Your task to perform on an android device: Open Google Chrome and click the shortcut for Amazon.com Image 0: 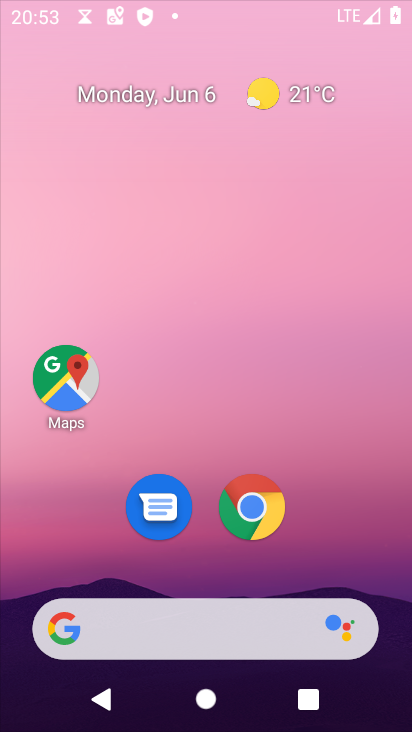
Step 0: drag from (213, 572) to (229, 132)
Your task to perform on an android device: Open Google Chrome and click the shortcut for Amazon.com Image 1: 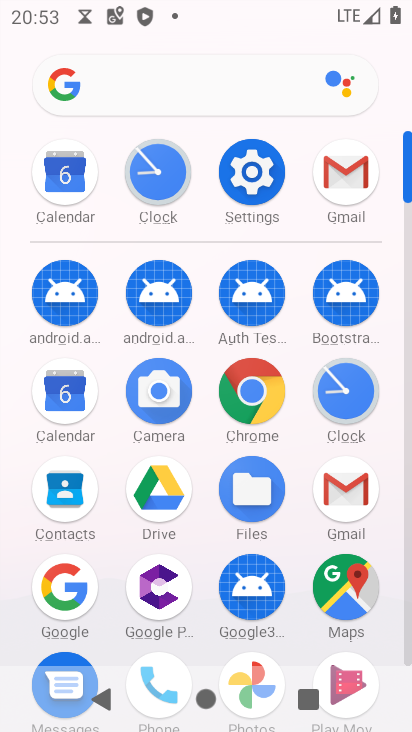
Step 1: click (257, 410)
Your task to perform on an android device: Open Google Chrome and click the shortcut for Amazon.com Image 2: 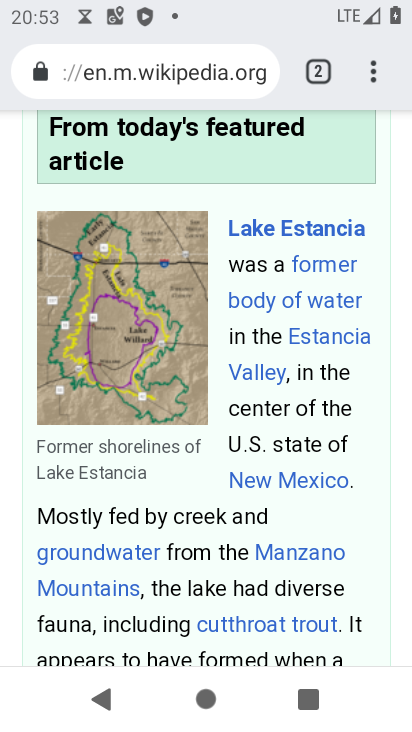
Step 2: press back button
Your task to perform on an android device: Open Google Chrome and click the shortcut for Amazon.com Image 3: 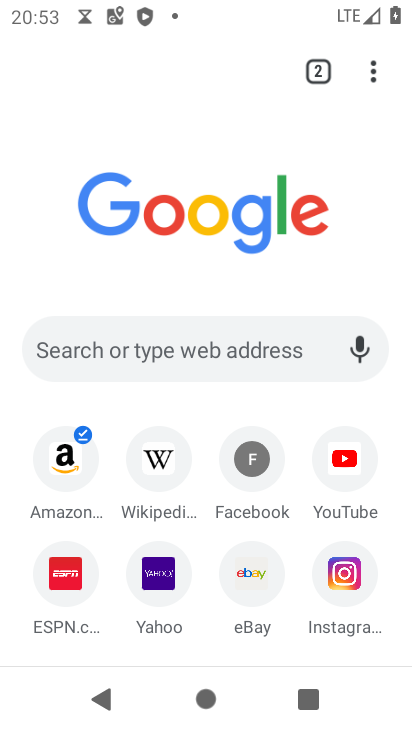
Step 3: click (60, 471)
Your task to perform on an android device: Open Google Chrome and click the shortcut for Amazon.com Image 4: 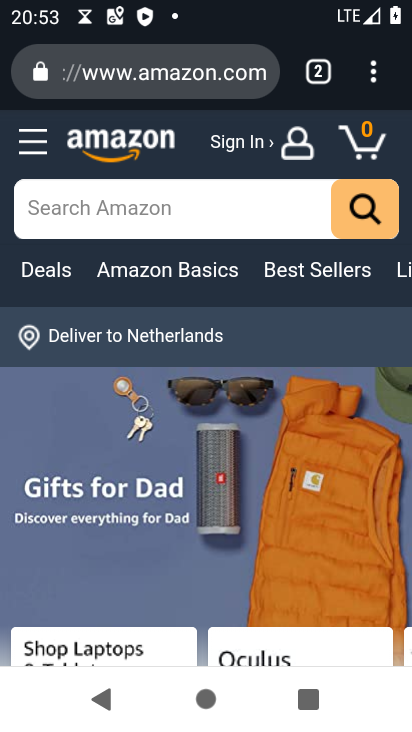
Step 4: task complete